Your task to perform on an android device: Open the Play Movies app and select the watchlist tab. Image 0: 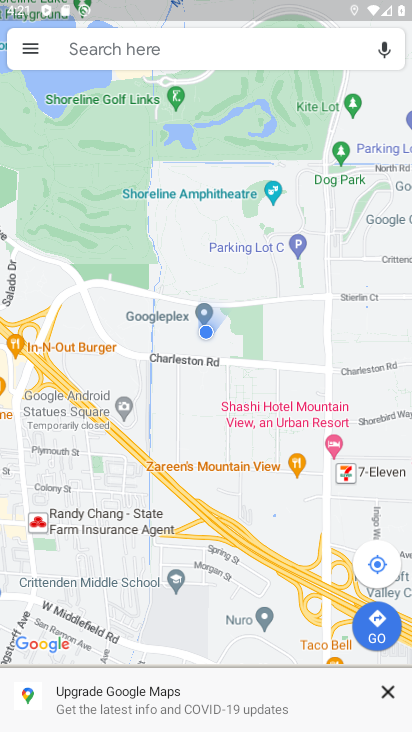
Step 0: press home button
Your task to perform on an android device: Open the Play Movies app and select the watchlist tab. Image 1: 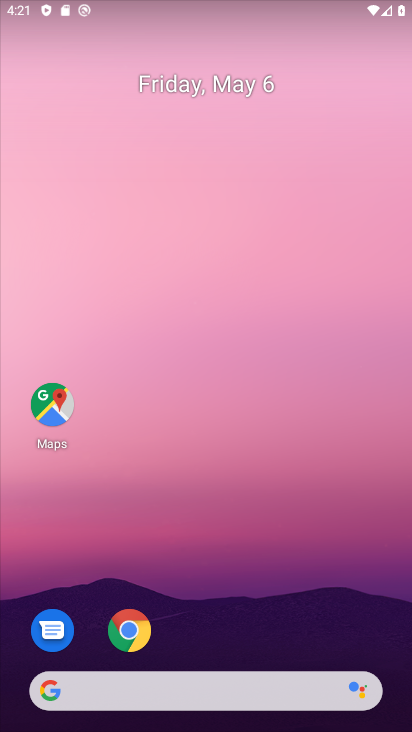
Step 1: drag from (224, 709) to (223, 234)
Your task to perform on an android device: Open the Play Movies app and select the watchlist tab. Image 2: 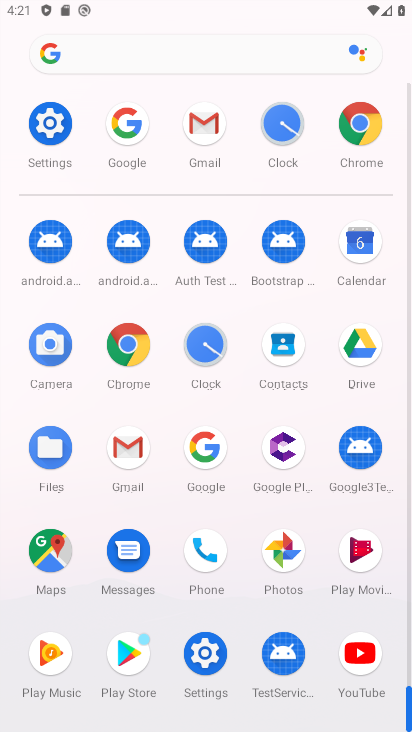
Step 2: drag from (139, 652) to (131, 525)
Your task to perform on an android device: Open the Play Movies app and select the watchlist tab. Image 3: 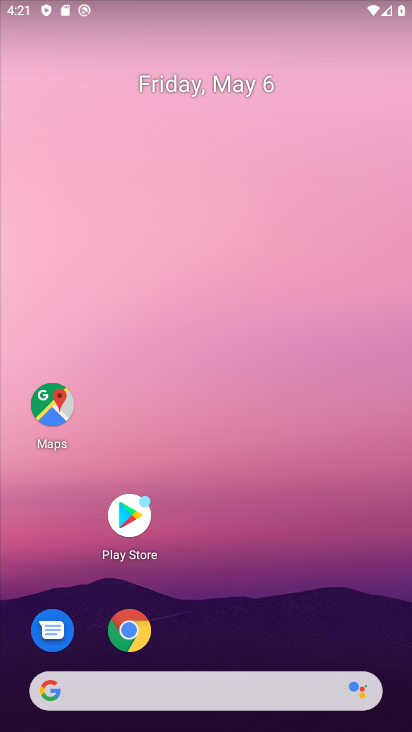
Step 3: drag from (302, 630) to (265, 284)
Your task to perform on an android device: Open the Play Movies app and select the watchlist tab. Image 4: 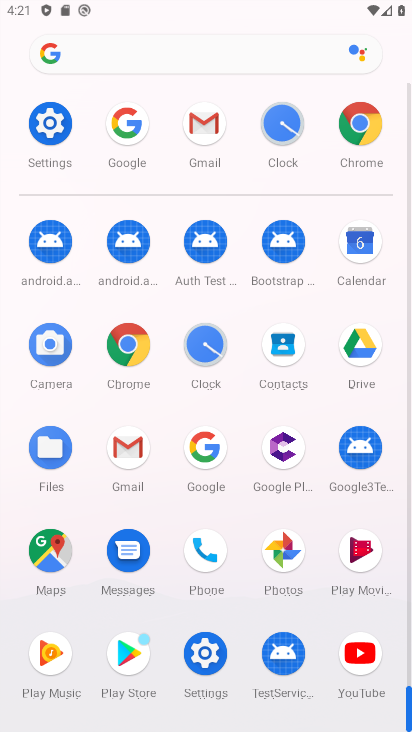
Step 4: click (377, 552)
Your task to perform on an android device: Open the Play Movies app and select the watchlist tab. Image 5: 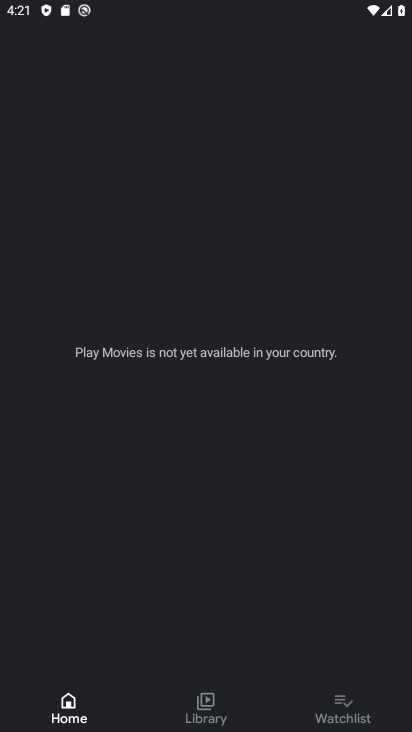
Step 5: click (344, 710)
Your task to perform on an android device: Open the Play Movies app and select the watchlist tab. Image 6: 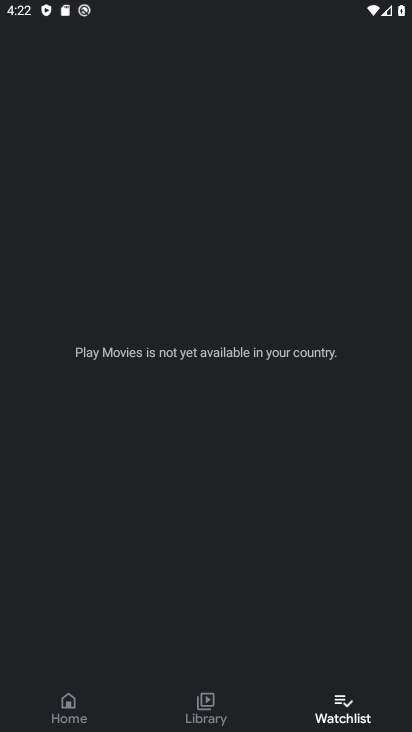
Step 6: task complete